Your task to perform on an android device: find snoozed emails in the gmail app Image 0: 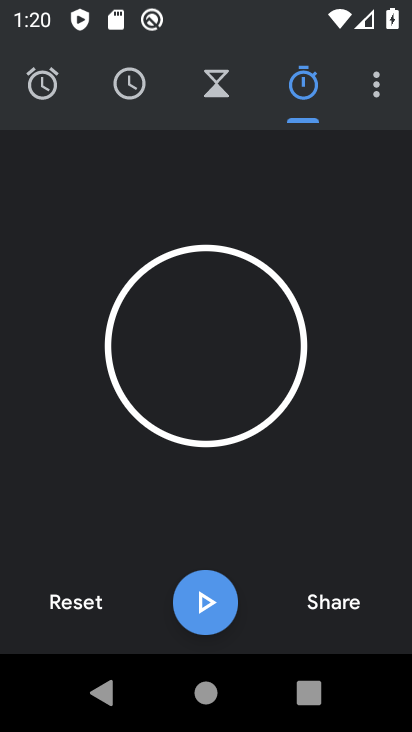
Step 0: press home button
Your task to perform on an android device: find snoozed emails in the gmail app Image 1: 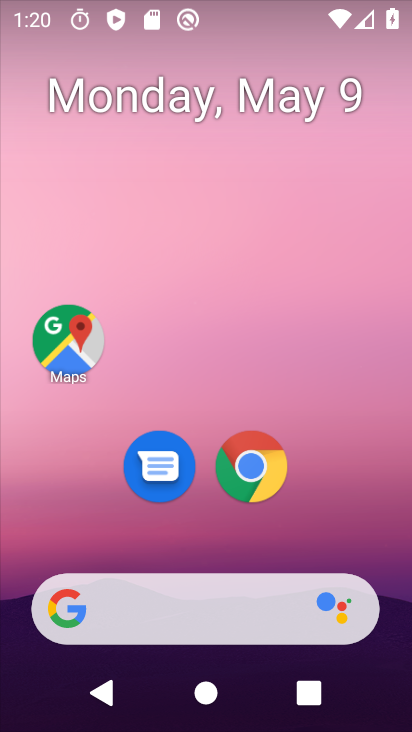
Step 1: drag from (312, 574) to (376, 185)
Your task to perform on an android device: find snoozed emails in the gmail app Image 2: 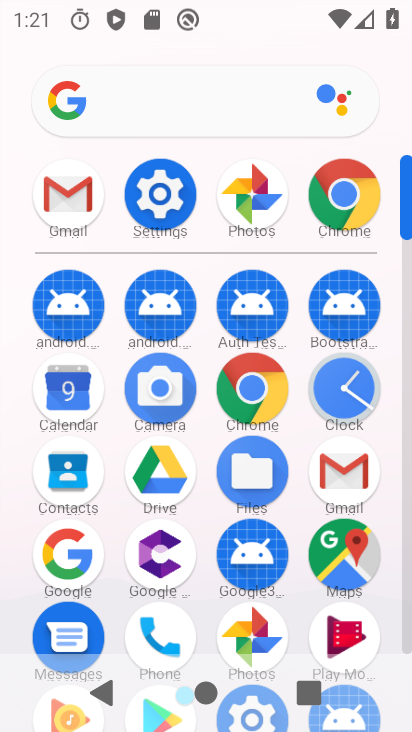
Step 2: drag from (306, 459) to (371, 153)
Your task to perform on an android device: find snoozed emails in the gmail app Image 3: 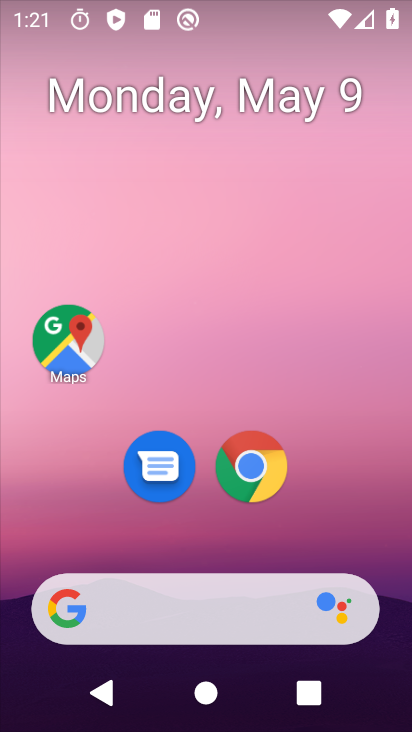
Step 3: drag from (257, 529) to (291, 237)
Your task to perform on an android device: find snoozed emails in the gmail app Image 4: 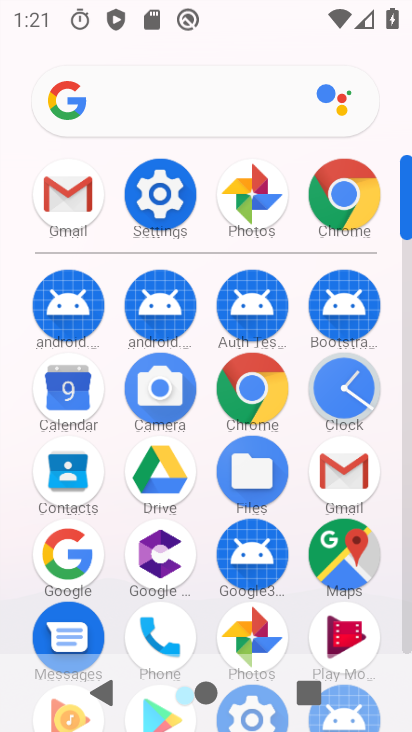
Step 4: click (78, 210)
Your task to perform on an android device: find snoozed emails in the gmail app Image 5: 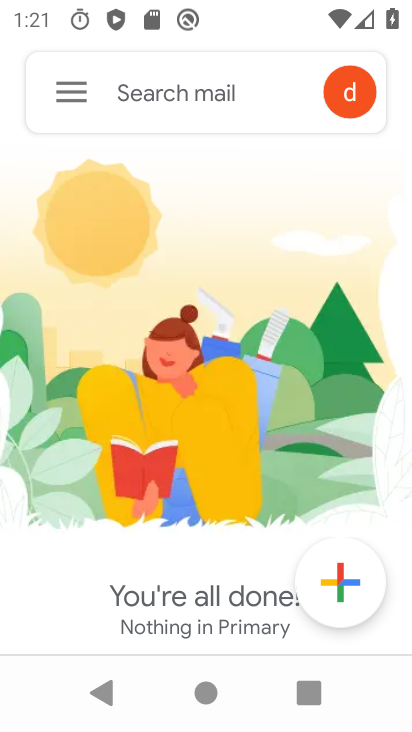
Step 5: click (71, 103)
Your task to perform on an android device: find snoozed emails in the gmail app Image 6: 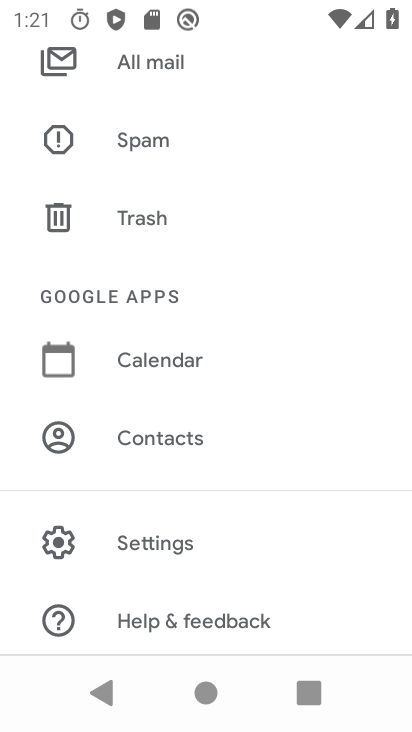
Step 6: drag from (123, 145) to (129, 339)
Your task to perform on an android device: find snoozed emails in the gmail app Image 7: 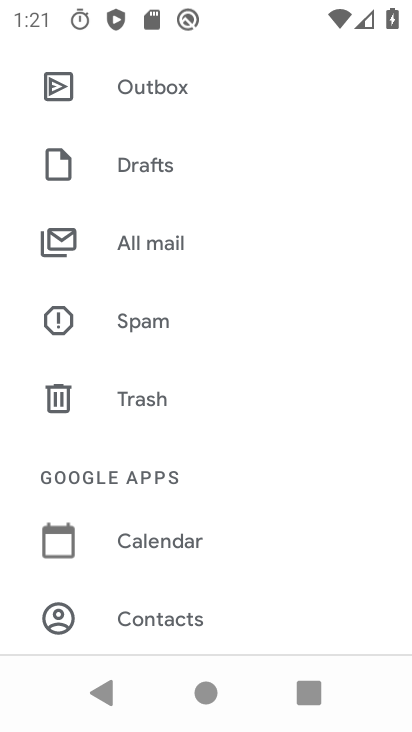
Step 7: drag from (131, 123) to (113, 293)
Your task to perform on an android device: find snoozed emails in the gmail app Image 8: 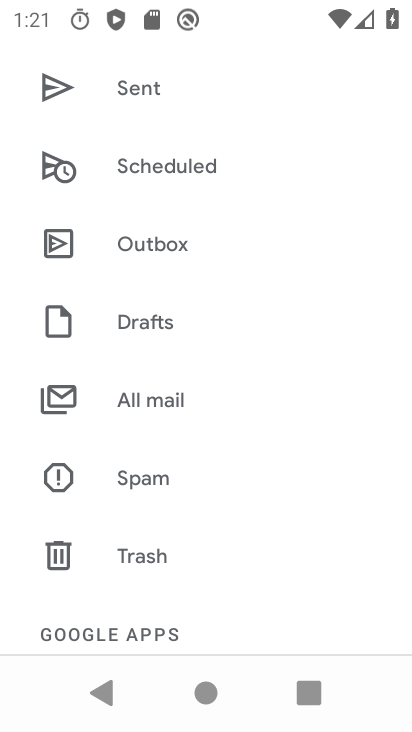
Step 8: drag from (132, 92) to (120, 289)
Your task to perform on an android device: find snoozed emails in the gmail app Image 9: 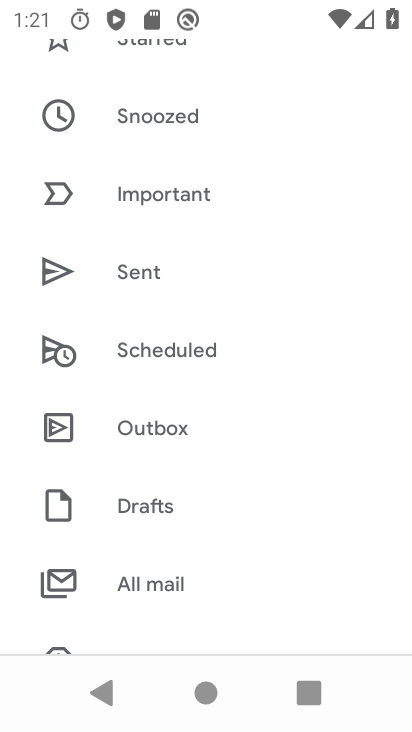
Step 9: click (130, 134)
Your task to perform on an android device: find snoozed emails in the gmail app Image 10: 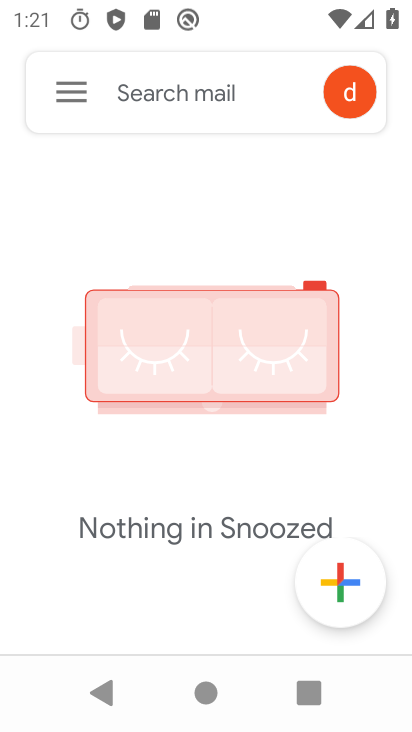
Step 10: task complete